Your task to perform on an android device: find which apps use the phone's location Image 0: 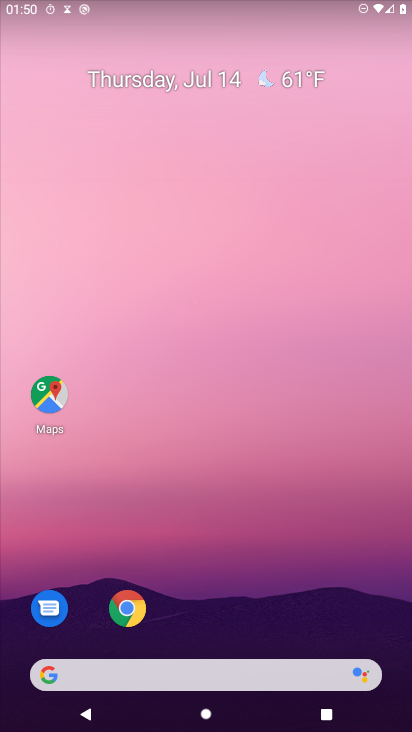
Step 0: drag from (273, 595) to (407, 41)
Your task to perform on an android device: find which apps use the phone's location Image 1: 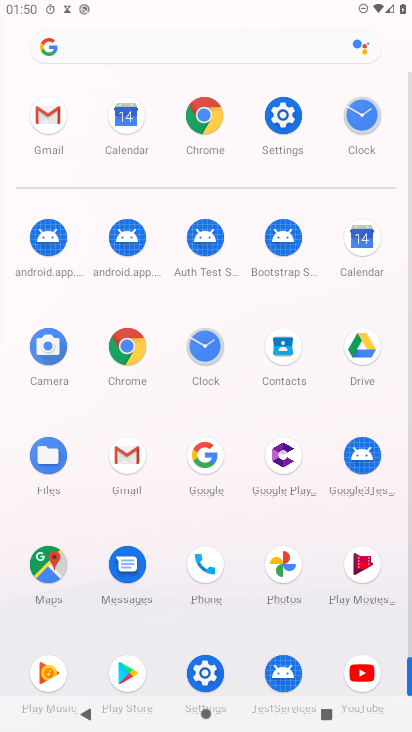
Step 1: click (285, 127)
Your task to perform on an android device: find which apps use the phone's location Image 2: 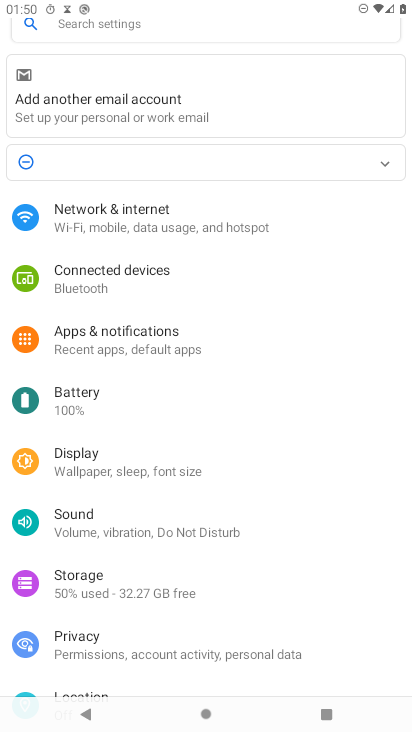
Step 2: click (90, 691)
Your task to perform on an android device: find which apps use the phone's location Image 3: 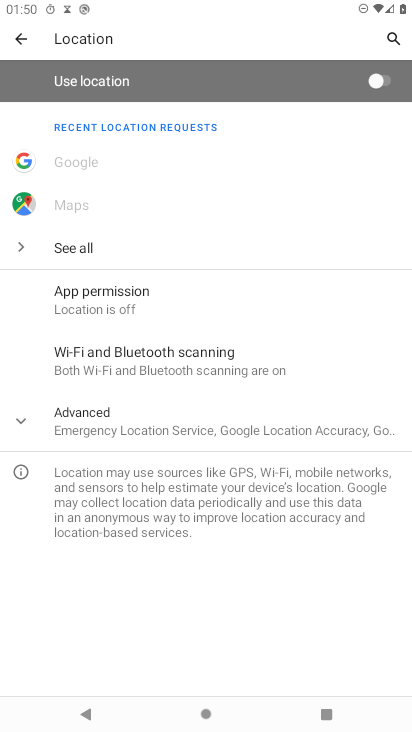
Step 3: click (22, 420)
Your task to perform on an android device: find which apps use the phone's location Image 4: 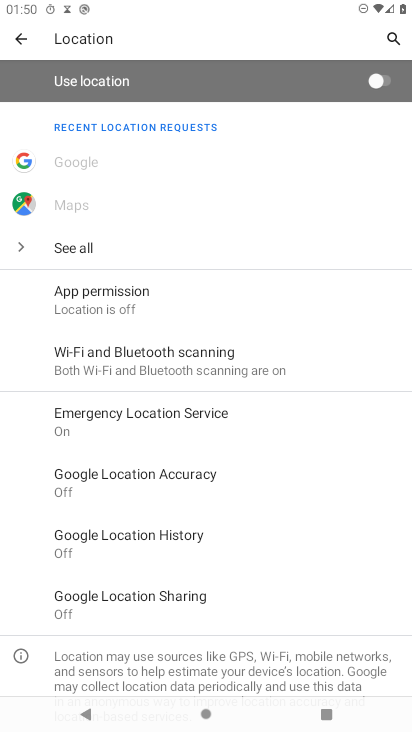
Step 4: click (130, 290)
Your task to perform on an android device: find which apps use the phone's location Image 5: 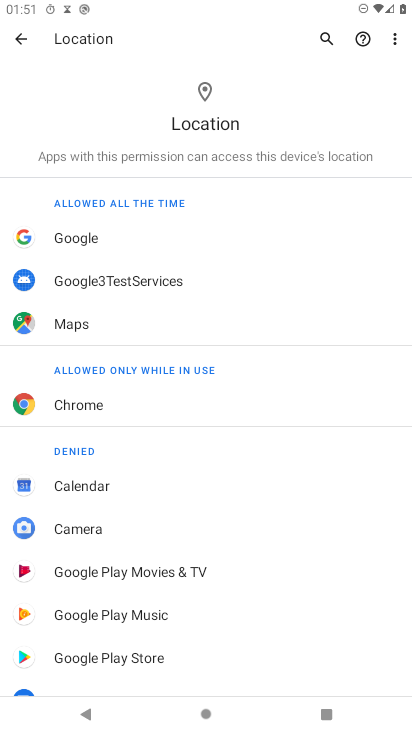
Step 5: task complete